Your task to perform on an android device: turn on location history Image 0: 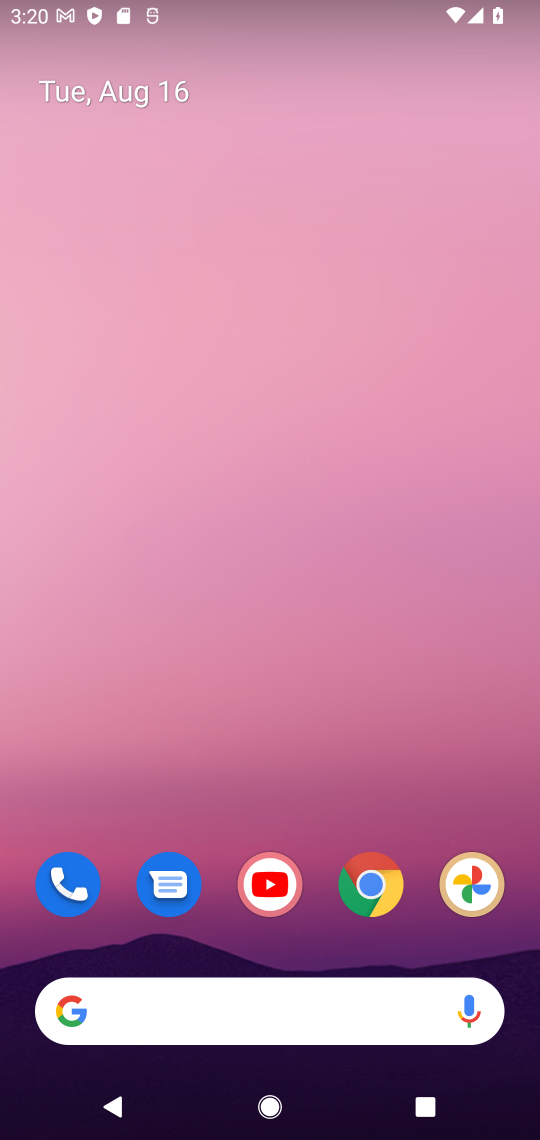
Step 0: drag from (314, 806) to (302, 141)
Your task to perform on an android device: turn on location history Image 1: 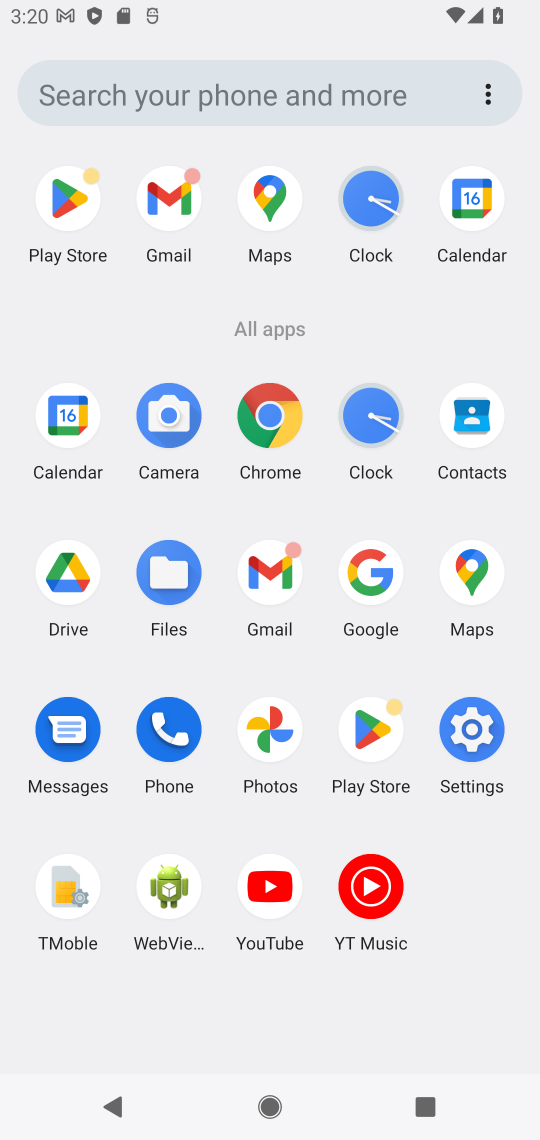
Step 1: click (475, 719)
Your task to perform on an android device: turn on location history Image 2: 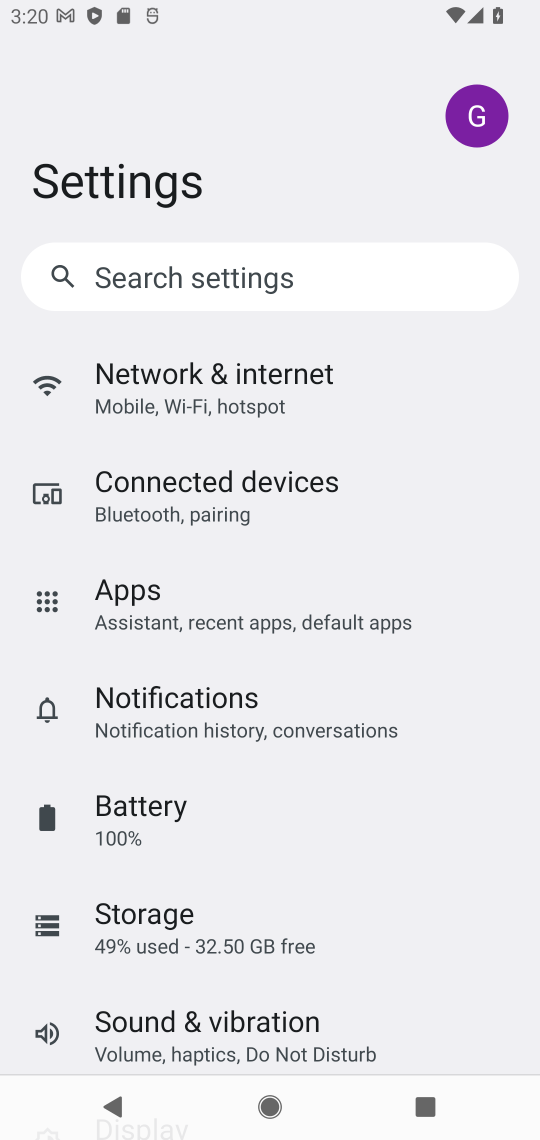
Step 2: drag from (251, 919) to (260, 426)
Your task to perform on an android device: turn on location history Image 3: 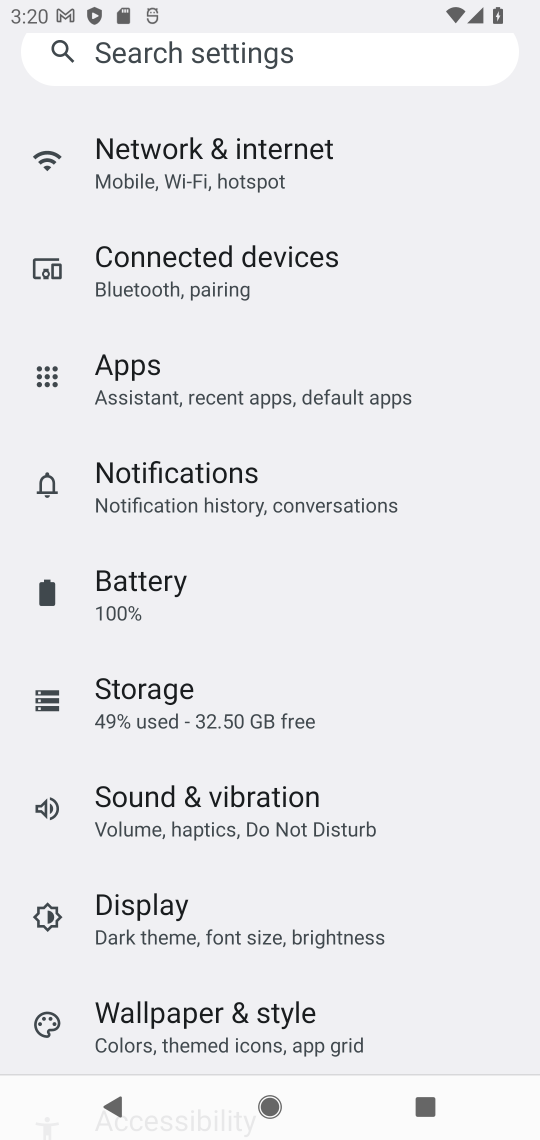
Step 3: drag from (217, 835) to (210, 427)
Your task to perform on an android device: turn on location history Image 4: 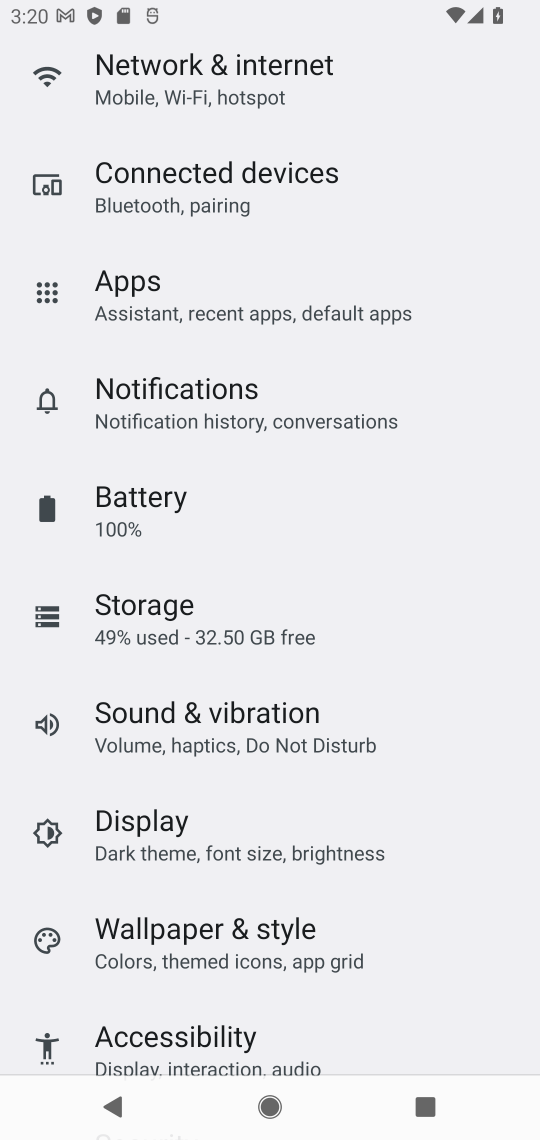
Step 4: drag from (254, 902) to (259, 429)
Your task to perform on an android device: turn on location history Image 5: 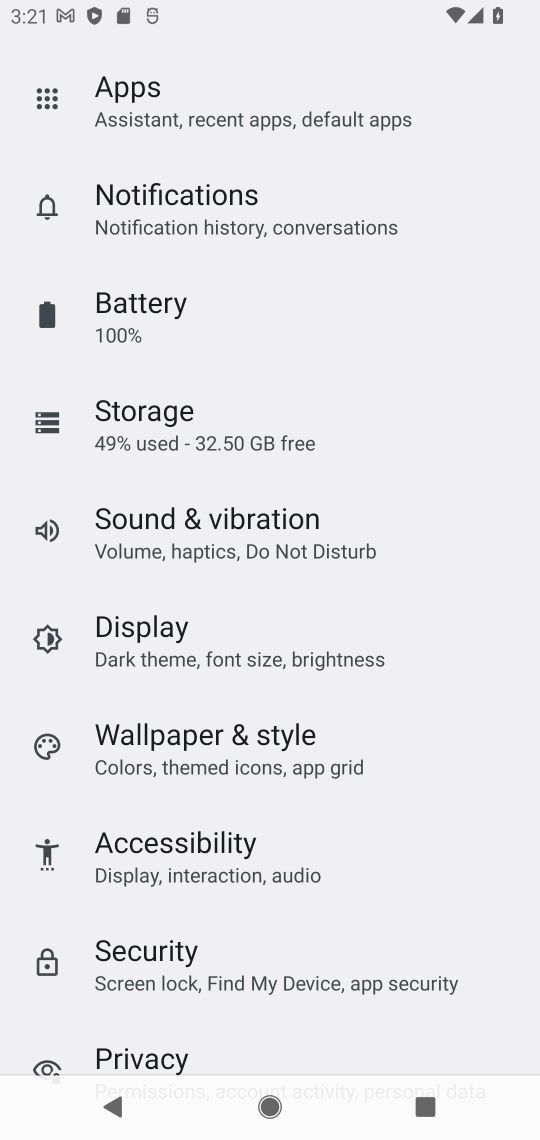
Step 5: drag from (250, 1009) to (304, 443)
Your task to perform on an android device: turn on location history Image 6: 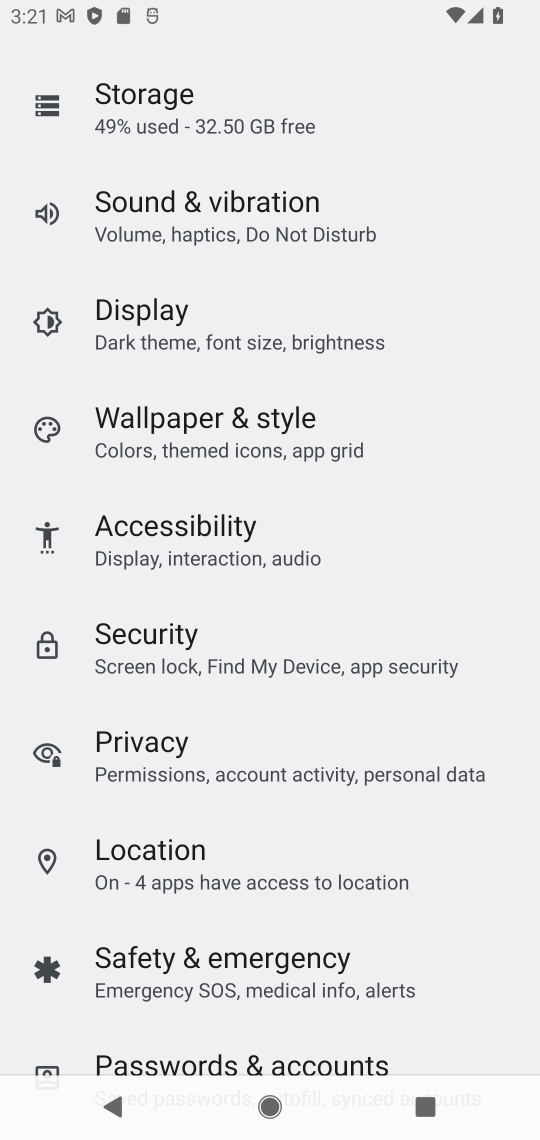
Step 6: click (201, 846)
Your task to perform on an android device: turn on location history Image 7: 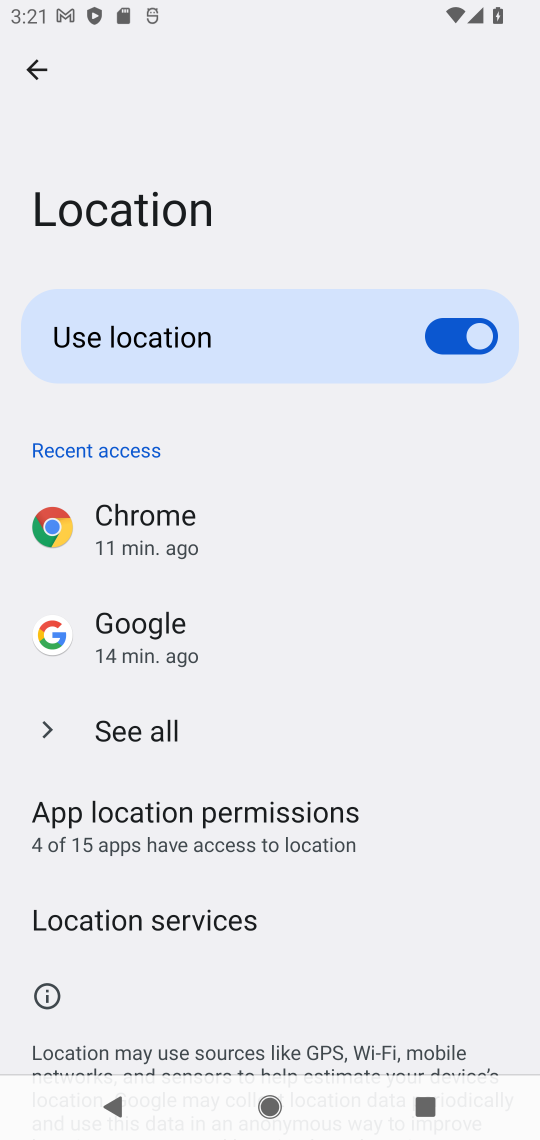
Step 7: drag from (232, 825) to (249, 467)
Your task to perform on an android device: turn on location history Image 8: 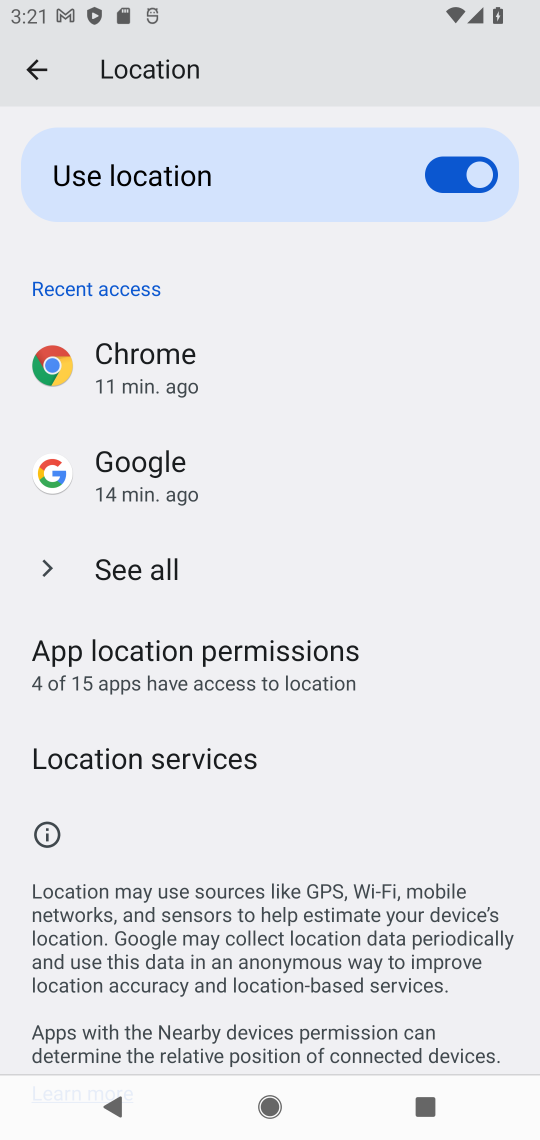
Step 8: click (141, 752)
Your task to perform on an android device: turn on location history Image 9: 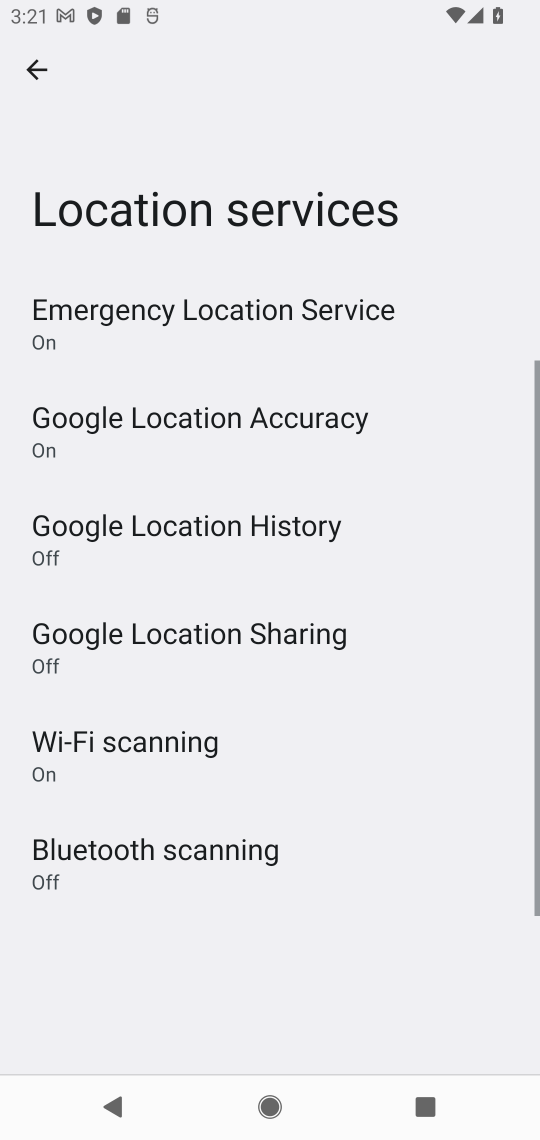
Step 9: click (280, 530)
Your task to perform on an android device: turn on location history Image 10: 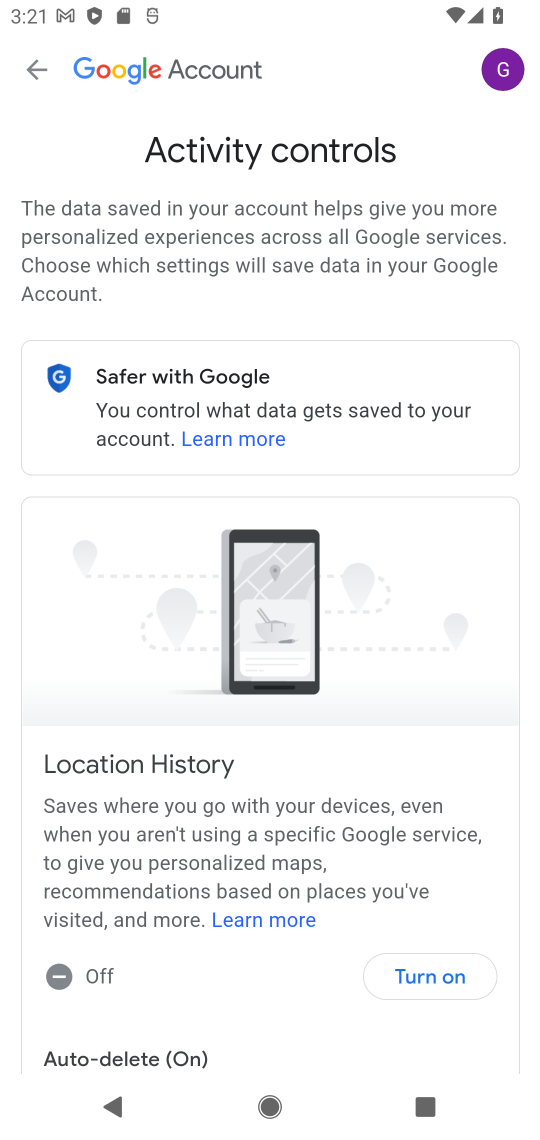
Step 10: click (453, 977)
Your task to perform on an android device: turn on location history Image 11: 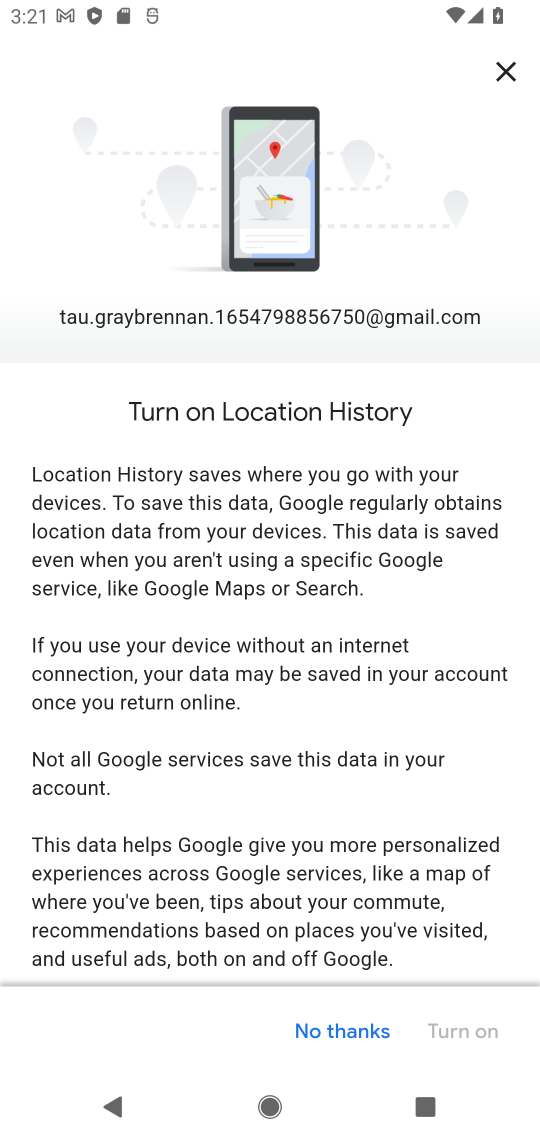
Step 11: drag from (357, 810) to (323, 351)
Your task to perform on an android device: turn on location history Image 12: 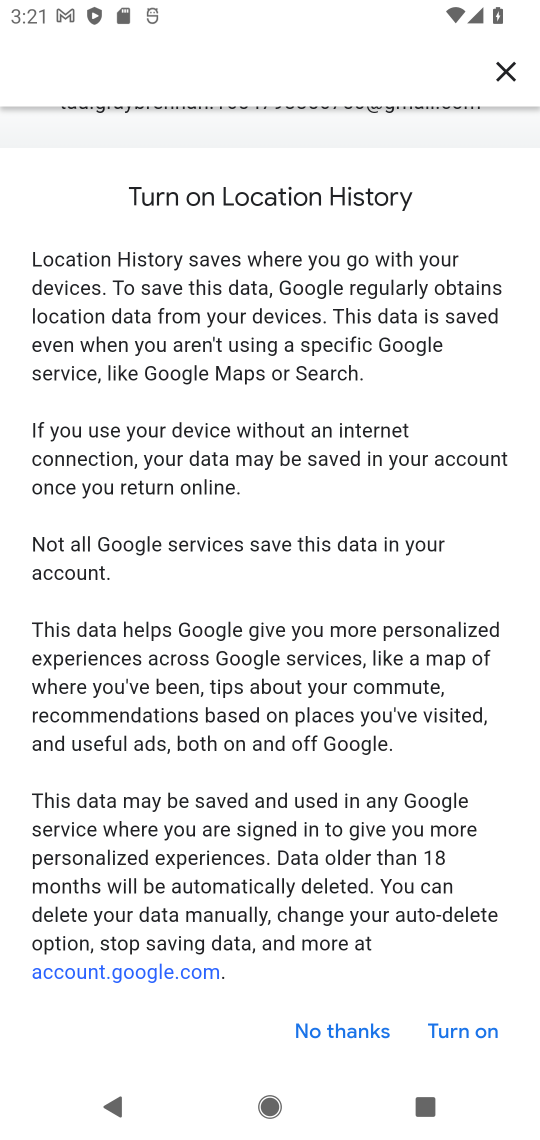
Step 12: drag from (262, 462) to (284, 375)
Your task to perform on an android device: turn on location history Image 13: 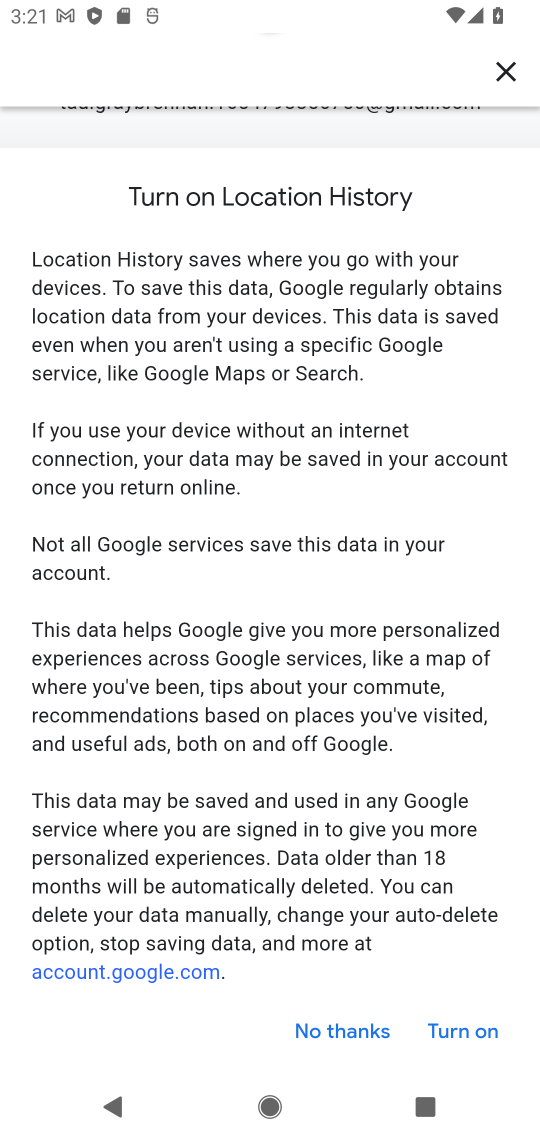
Step 13: click (435, 1024)
Your task to perform on an android device: turn on location history Image 14: 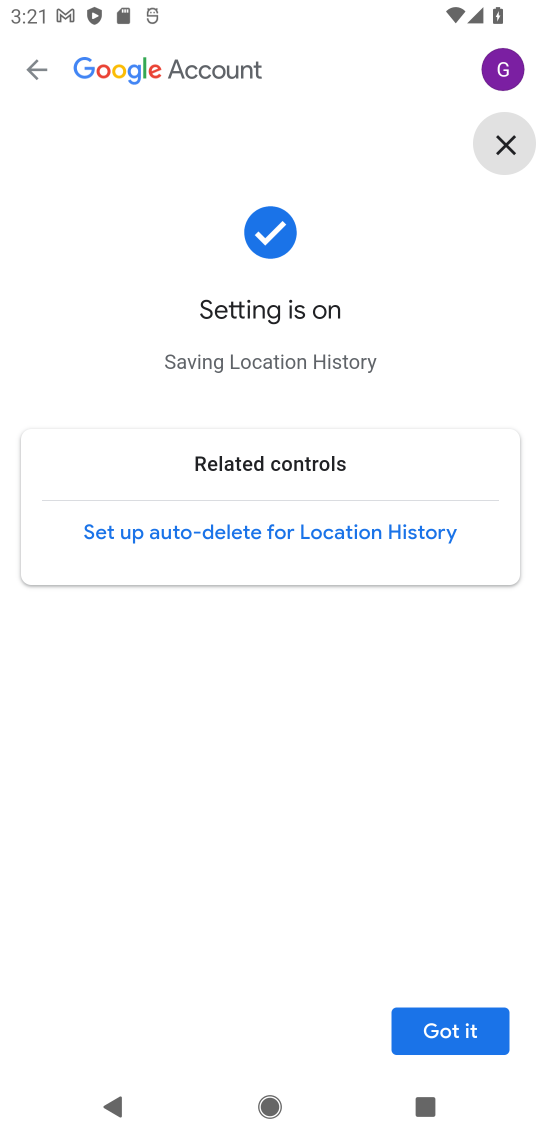
Step 14: task complete